Your task to perform on an android device: change alarm snooze length Image 0: 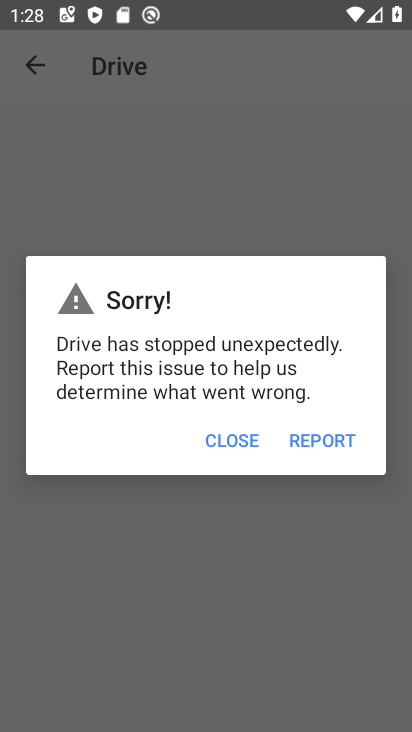
Step 0: press home button
Your task to perform on an android device: change alarm snooze length Image 1: 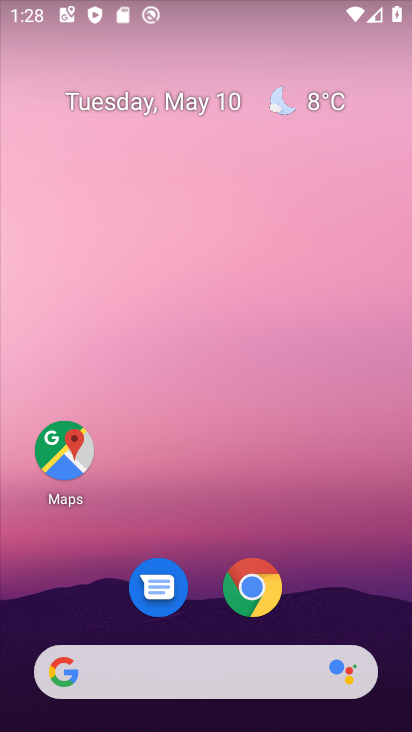
Step 1: drag from (322, 599) to (371, 23)
Your task to perform on an android device: change alarm snooze length Image 2: 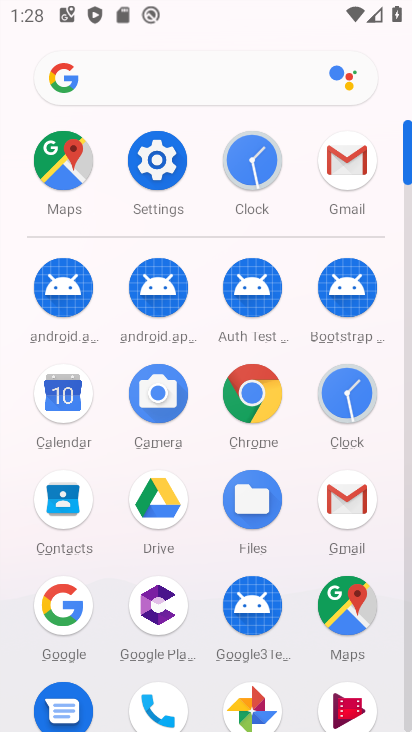
Step 2: click (338, 396)
Your task to perform on an android device: change alarm snooze length Image 3: 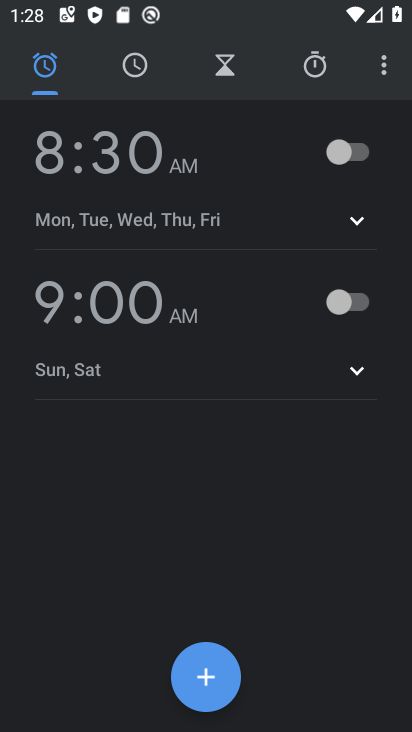
Step 3: click (395, 74)
Your task to perform on an android device: change alarm snooze length Image 4: 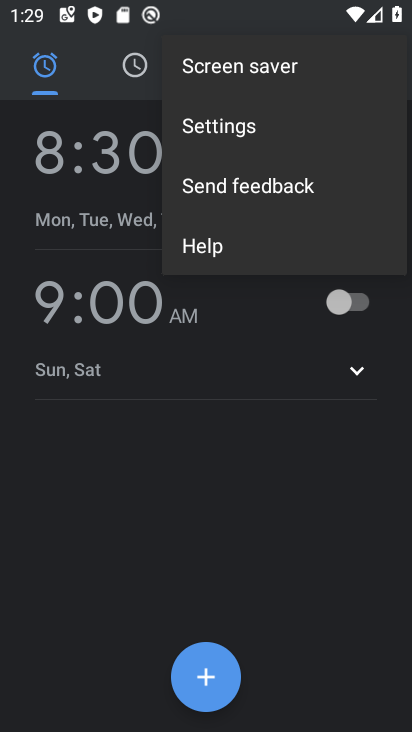
Step 4: click (248, 137)
Your task to perform on an android device: change alarm snooze length Image 5: 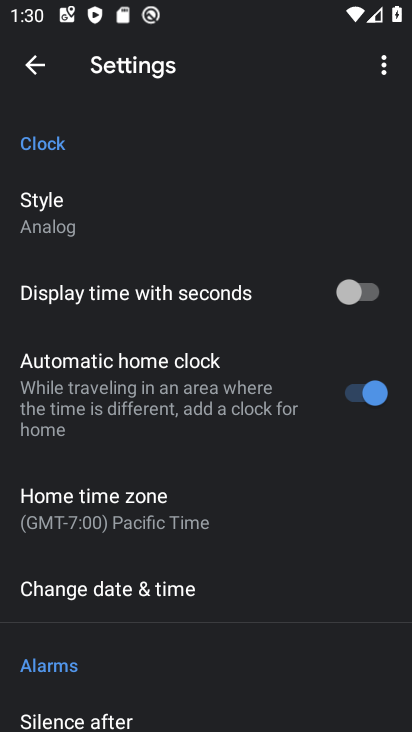
Step 5: drag from (211, 607) to (182, 297)
Your task to perform on an android device: change alarm snooze length Image 6: 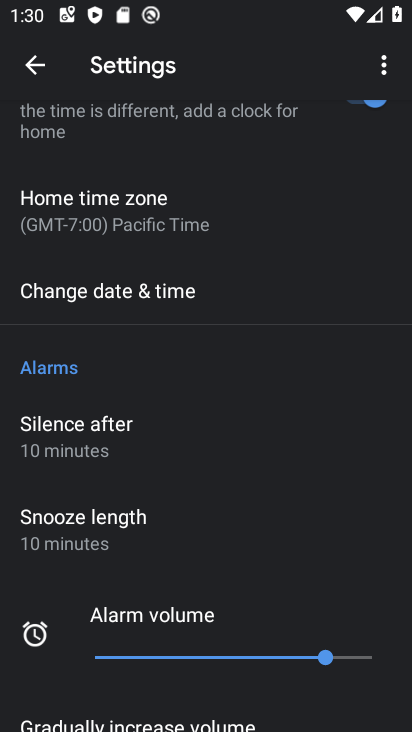
Step 6: click (131, 538)
Your task to perform on an android device: change alarm snooze length Image 7: 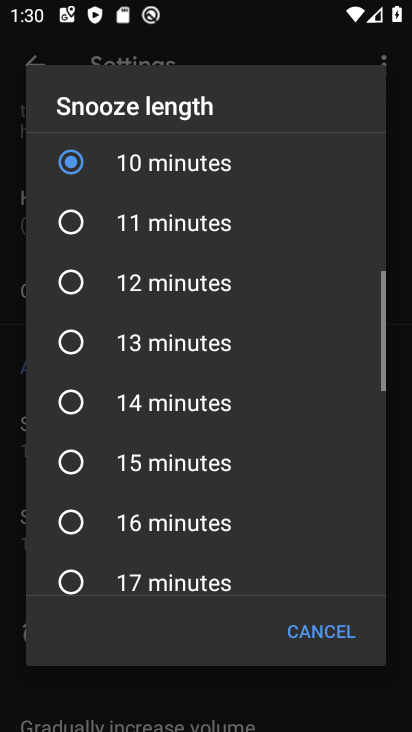
Step 7: click (185, 413)
Your task to perform on an android device: change alarm snooze length Image 8: 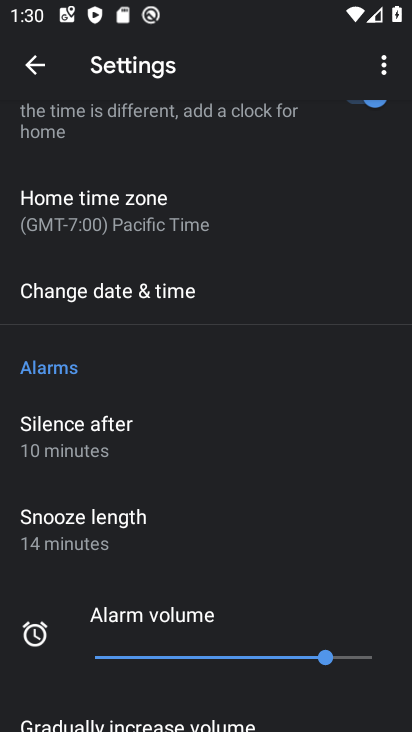
Step 8: task complete